Your task to perform on an android device: Go to battery settings Image 0: 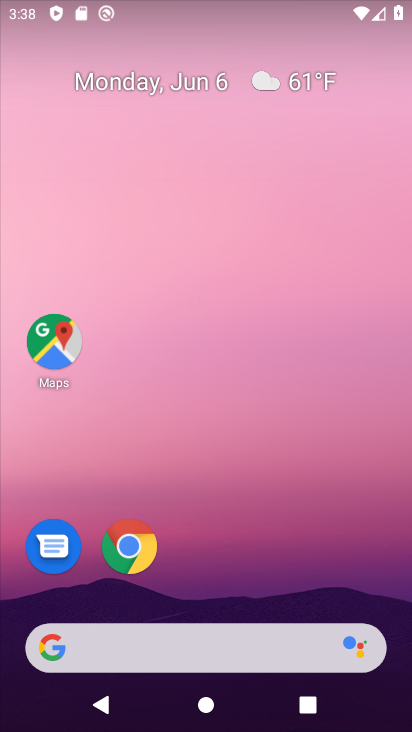
Step 0: drag from (241, 714) to (251, 67)
Your task to perform on an android device: Go to battery settings Image 1: 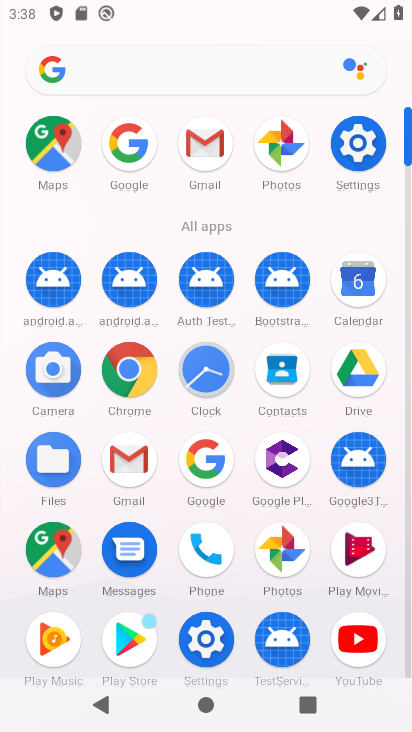
Step 1: click (359, 146)
Your task to perform on an android device: Go to battery settings Image 2: 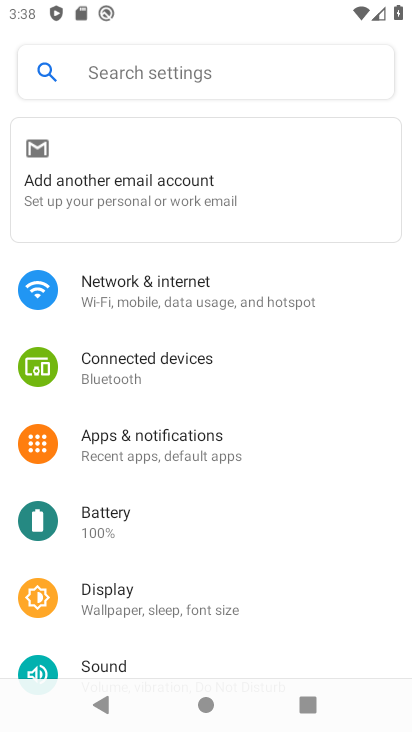
Step 2: drag from (121, 625) to (128, 308)
Your task to perform on an android device: Go to battery settings Image 3: 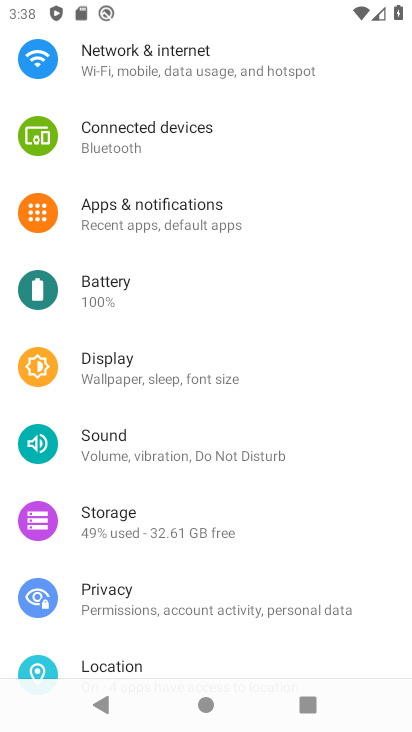
Step 3: click (91, 289)
Your task to perform on an android device: Go to battery settings Image 4: 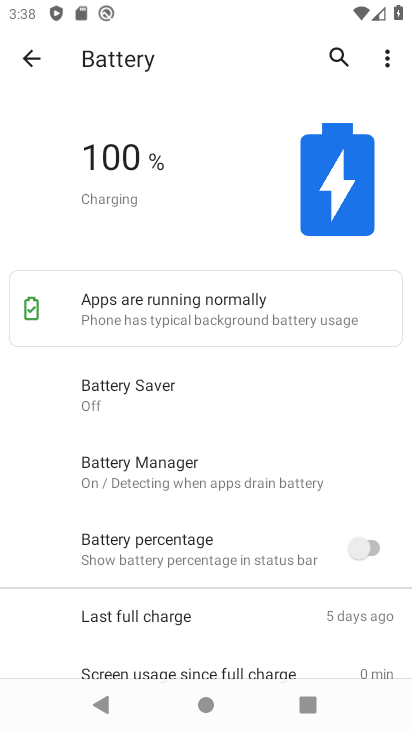
Step 4: task complete